Your task to perform on an android device: Add "razer blade" to the cart on amazon.com Image 0: 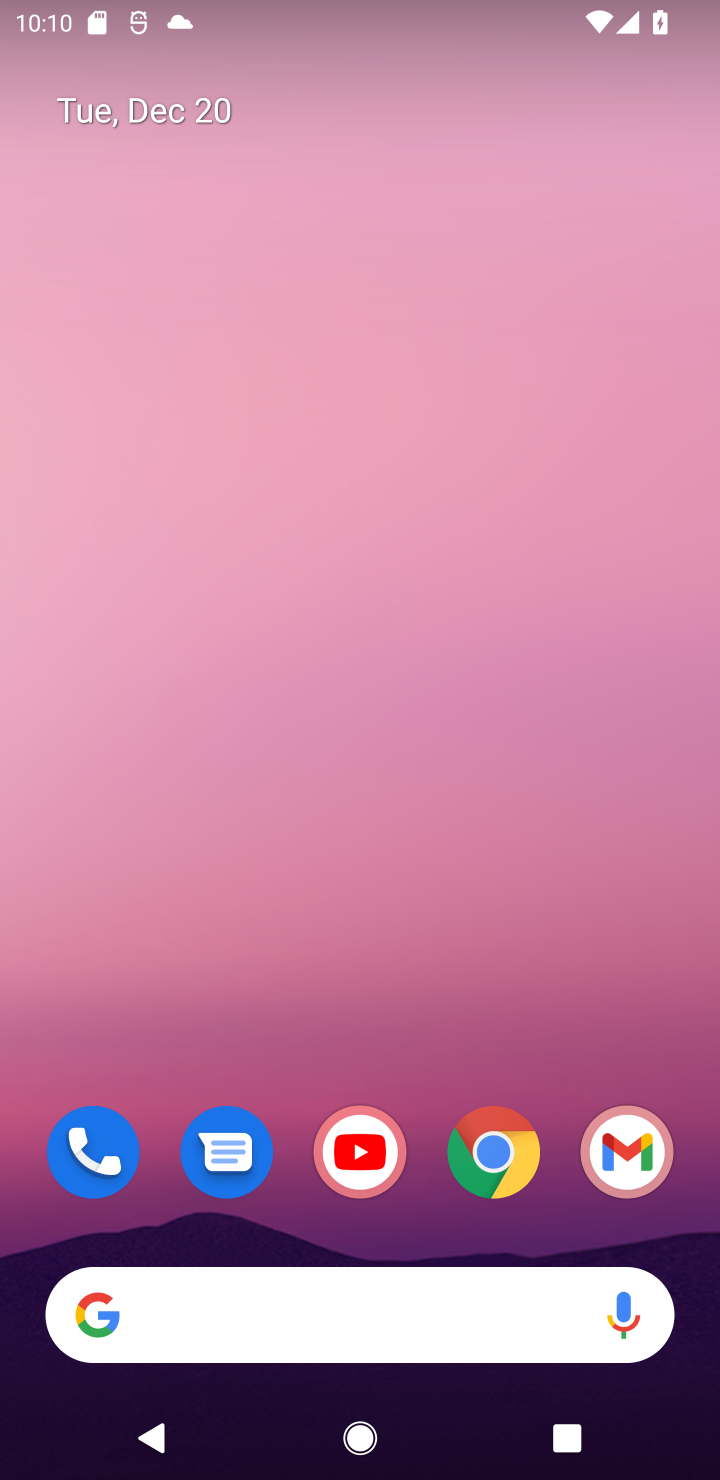
Step 0: click (490, 1145)
Your task to perform on an android device: Add "razer blade" to the cart on amazon.com Image 1: 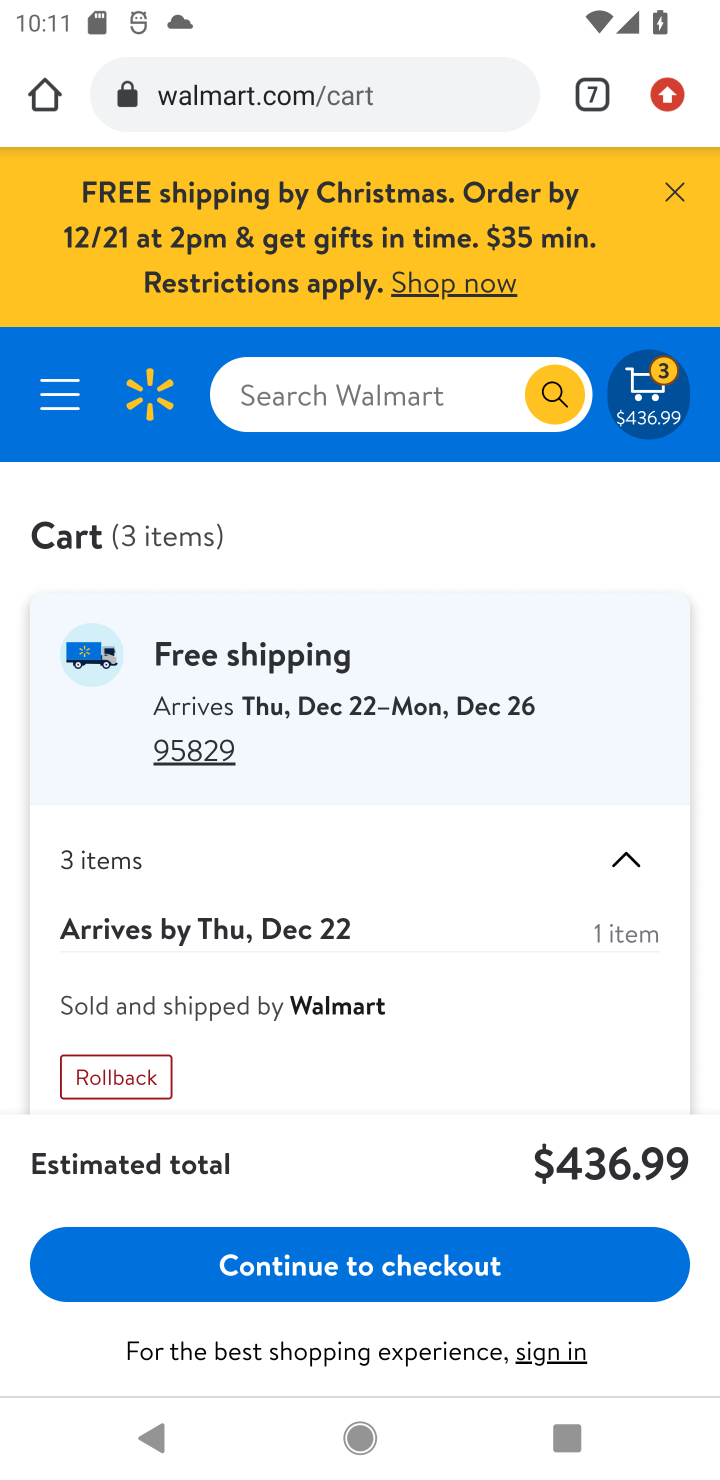
Step 1: click (586, 104)
Your task to perform on an android device: Add "razer blade" to the cart on amazon.com Image 2: 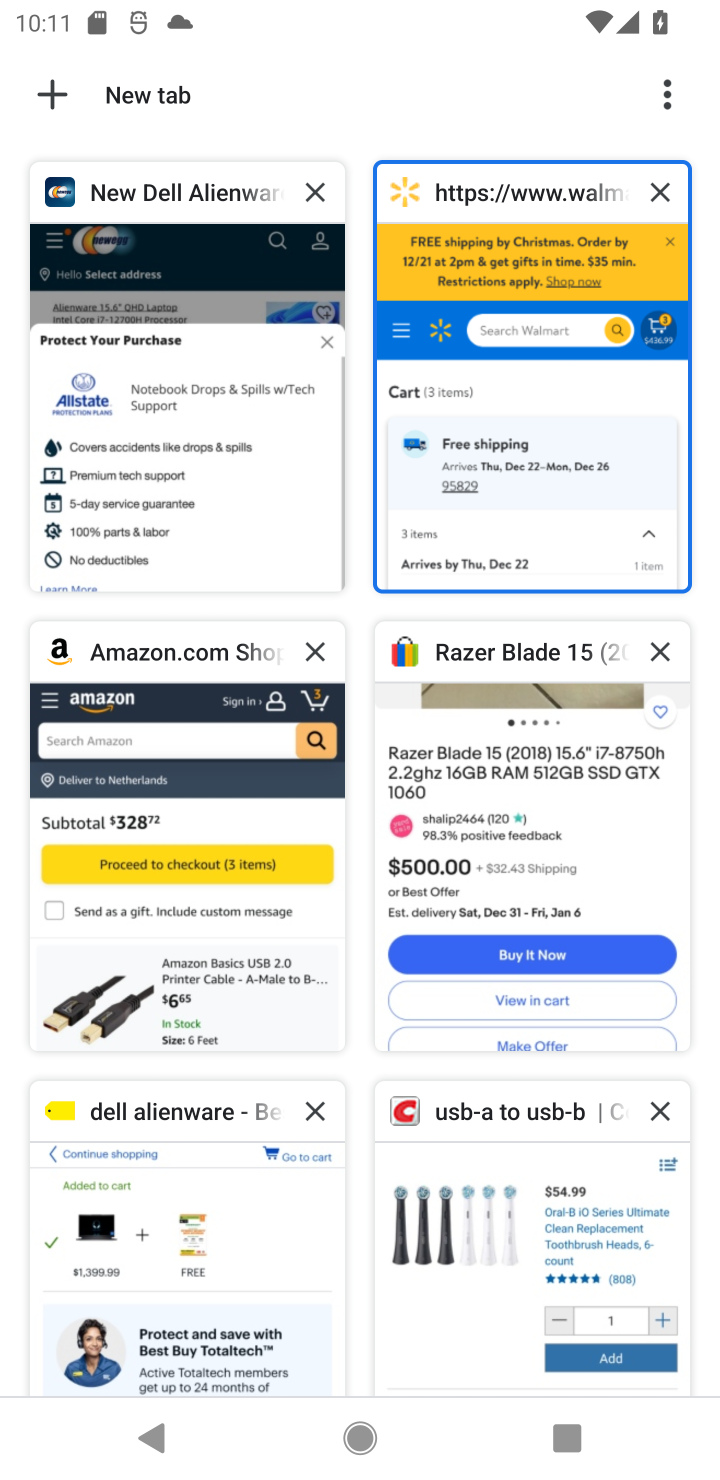
Step 2: click (224, 803)
Your task to perform on an android device: Add "razer blade" to the cart on amazon.com Image 3: 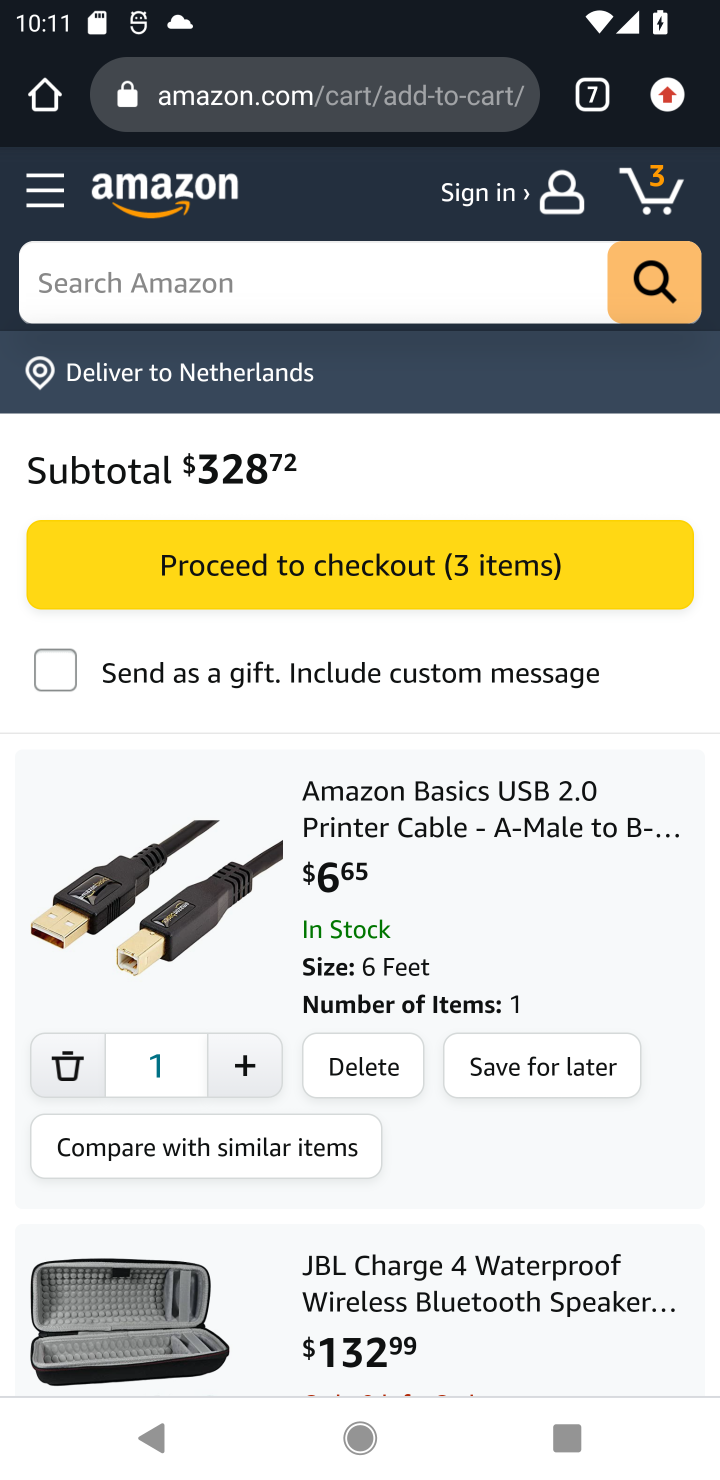
Step 3: click (246, 282)
Your task to perform on an android device: Add "razer blade" to the cart on amazon.com Image 4: 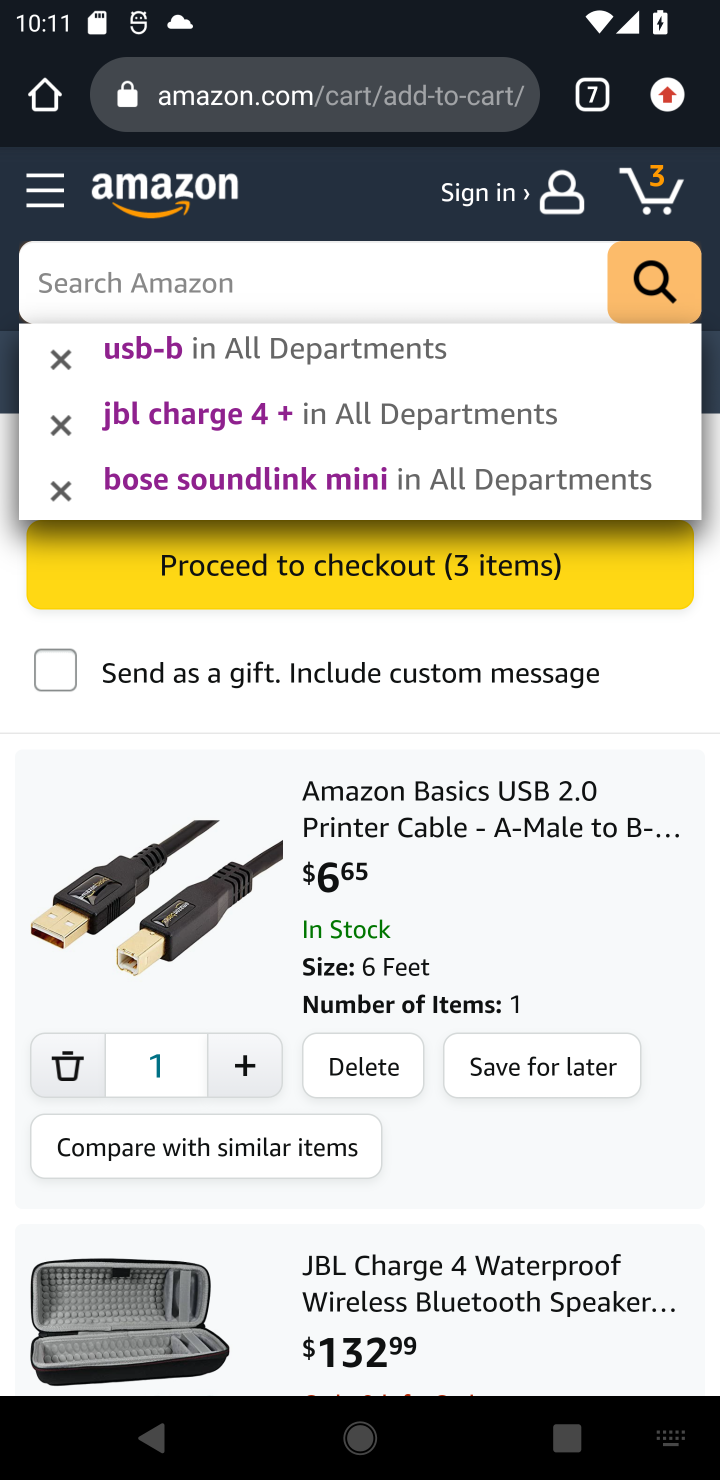
Step 4: type "razer blade"
Your task to perform on an android device: Add "razer blade" to the cart on amazon.com Image 5: 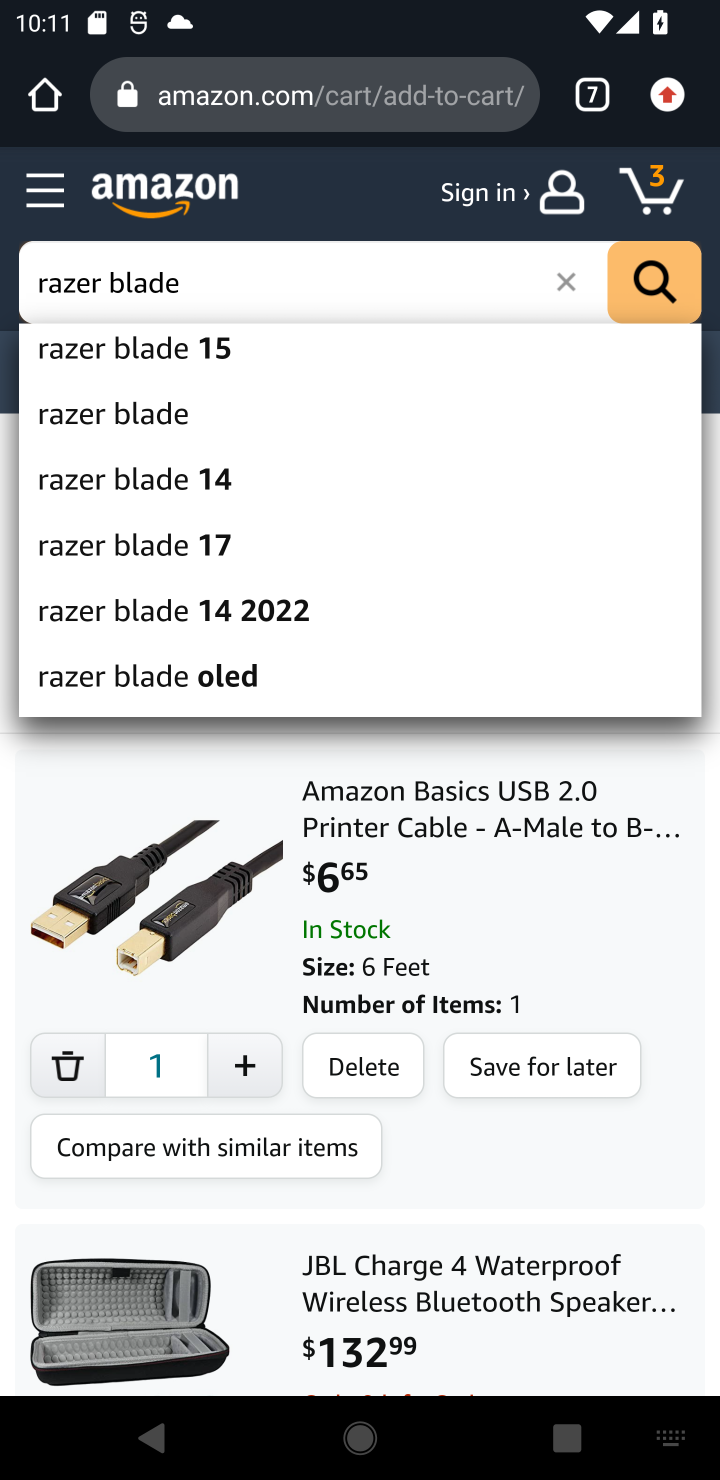
Step 5: click (664, 285)
Your task to perform on an android device: Add "razer blade" to the cart on amazon.com Image 6: 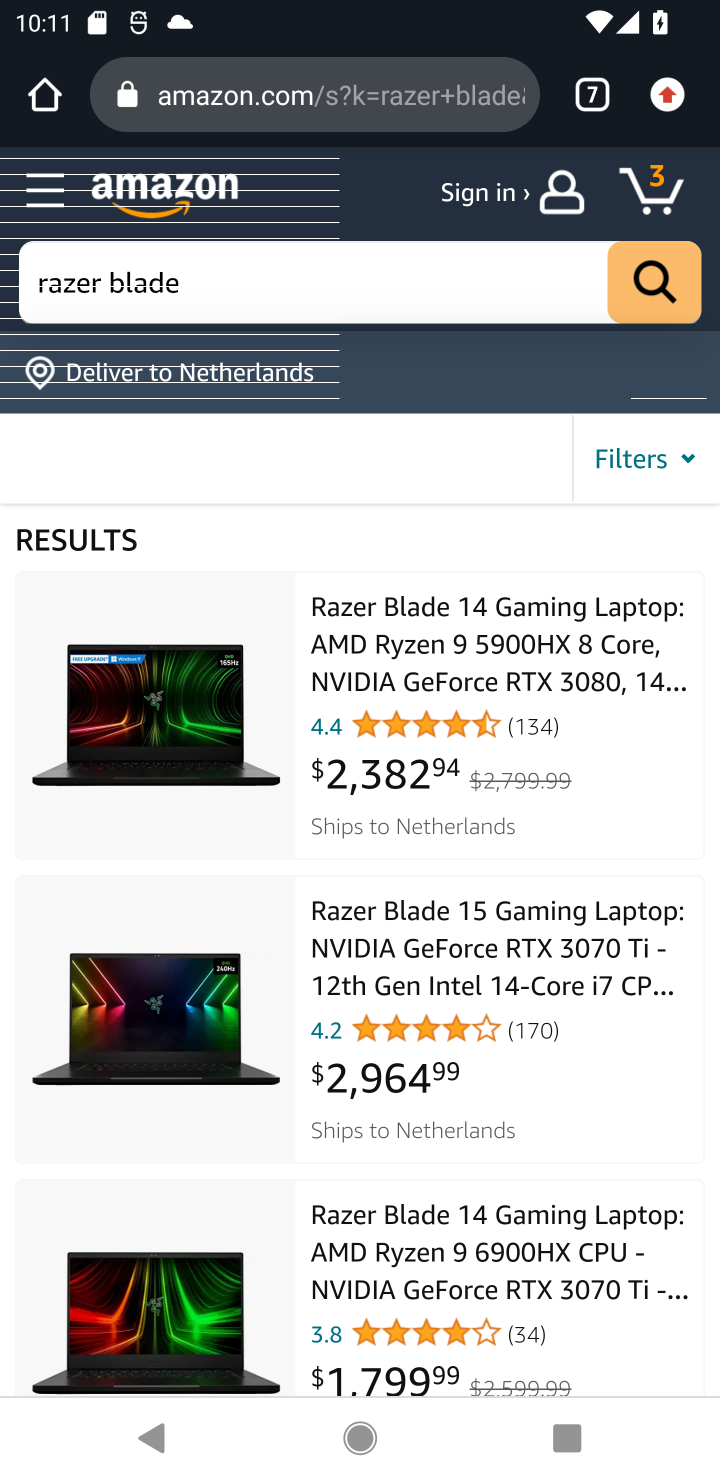
Step 6: click (511, 654)
Your task to perform on an android device: Add "razer blade" to the cart on amazon.com Image 7: 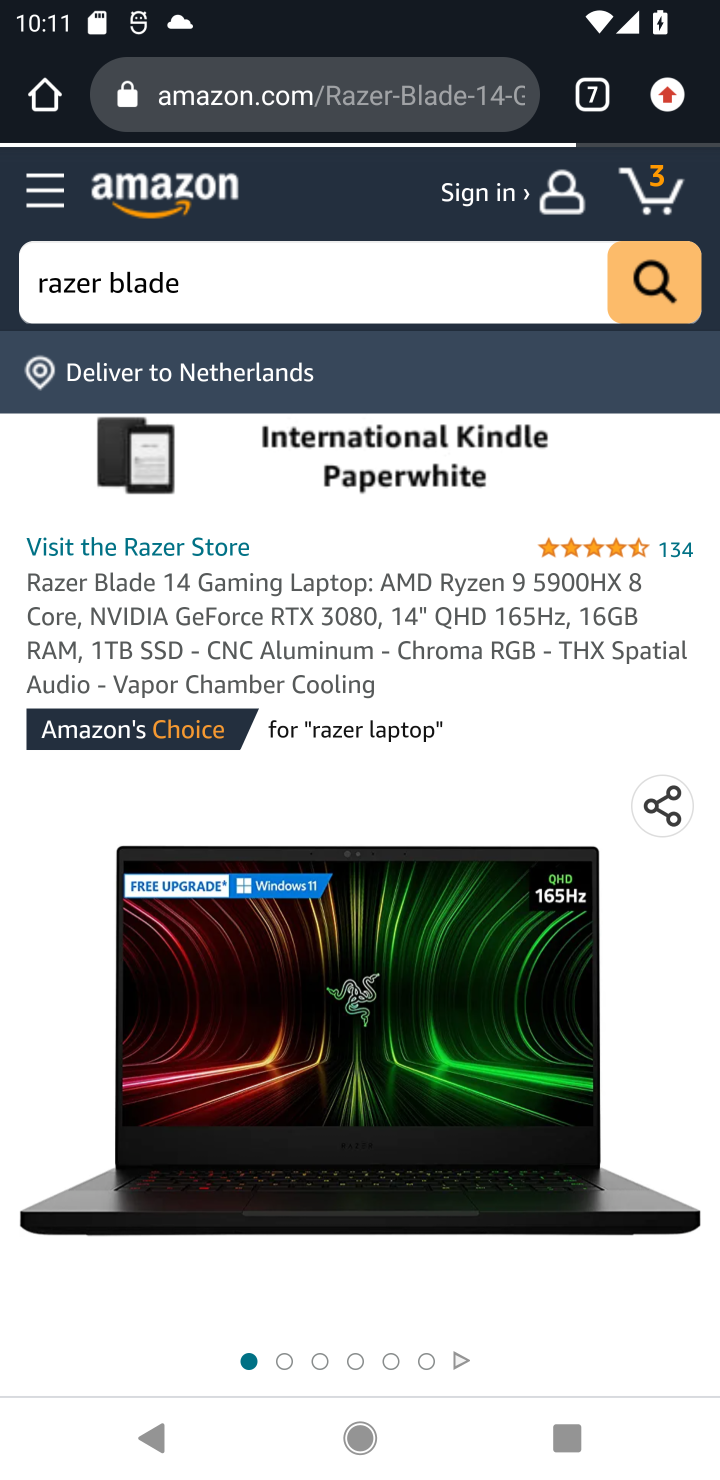
Step 7: drag from (414, 1356) to (461, 445)
Your task to perform on an android device: Add "razer blade" to the cart on amazon.com Image 8: 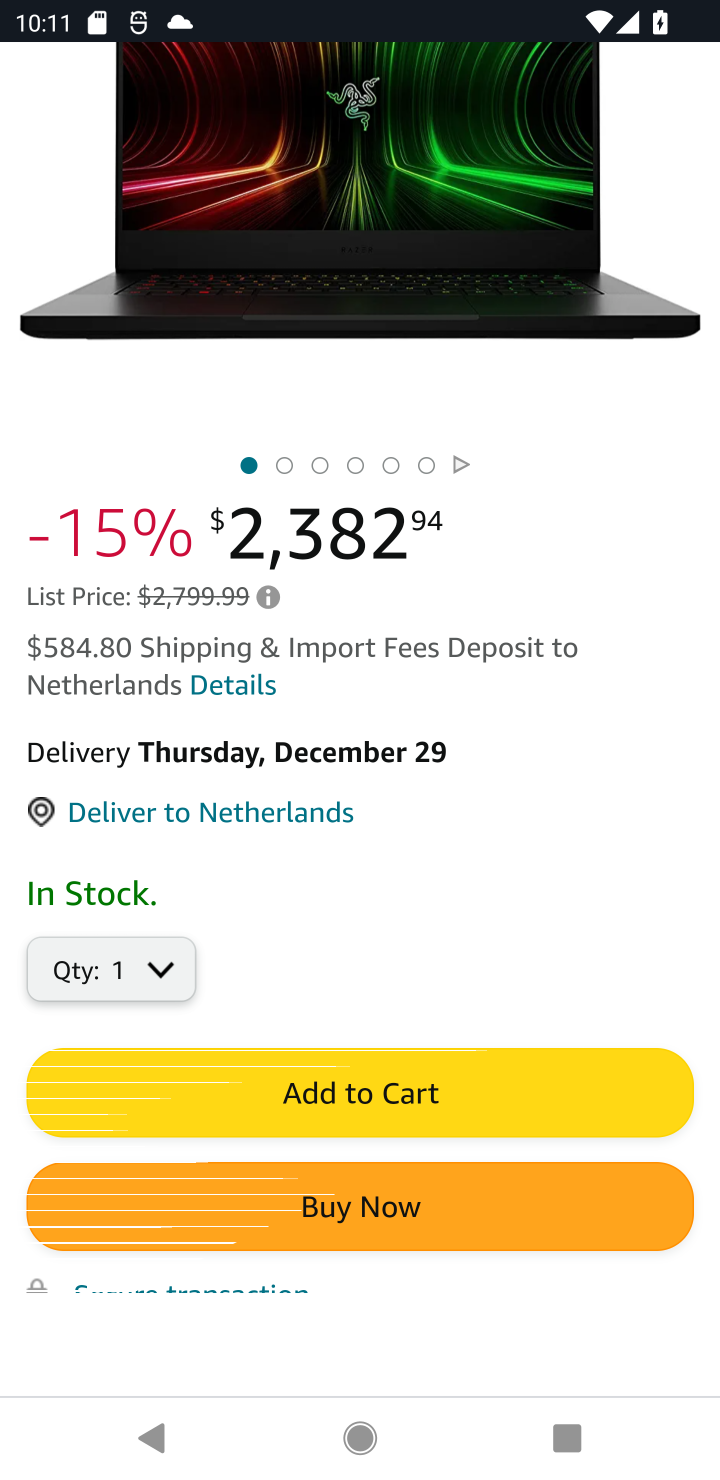
Step 8: click (444, 1099)
Your task to perform on an android device: Add "razer blade" to the cart on amazon.com Image 9: 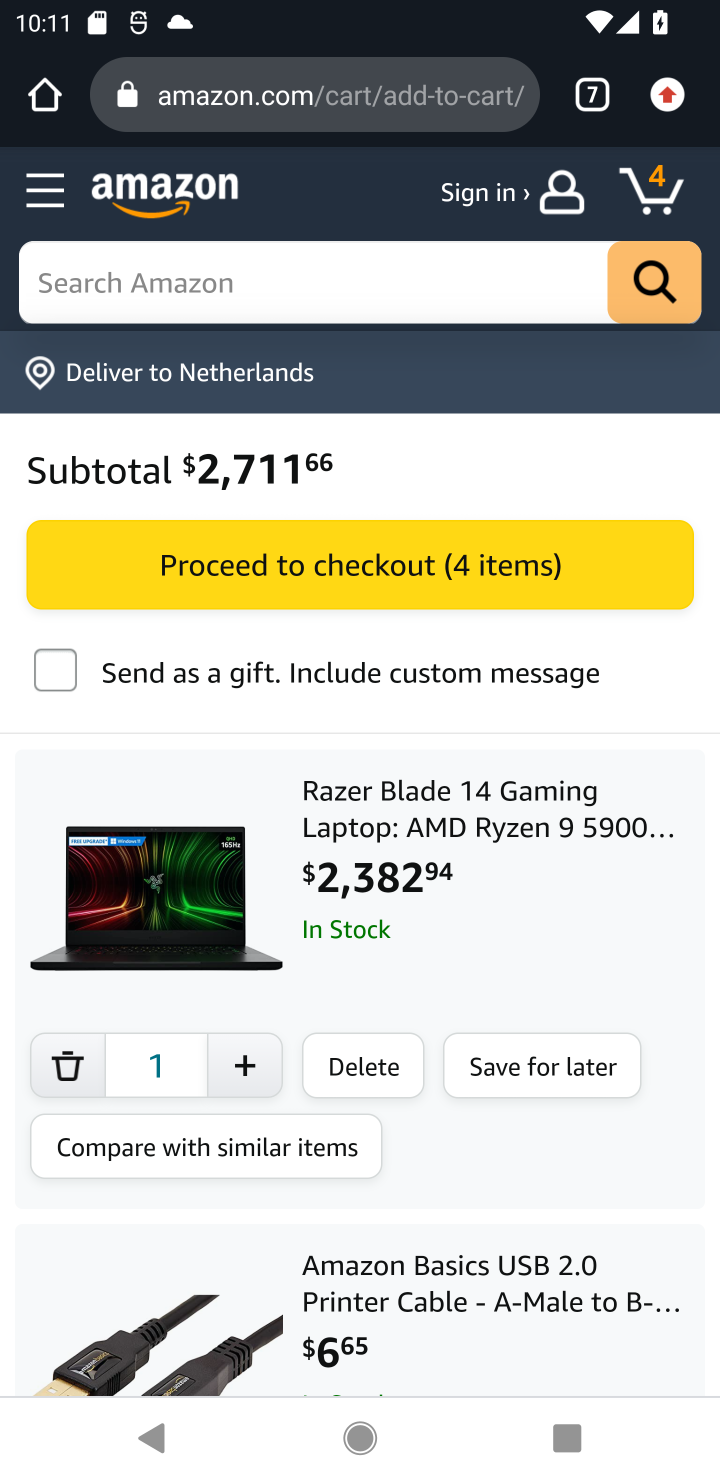
Step 9: task complete